Your task to perform on an android device: change the clock display to analog Image 0: 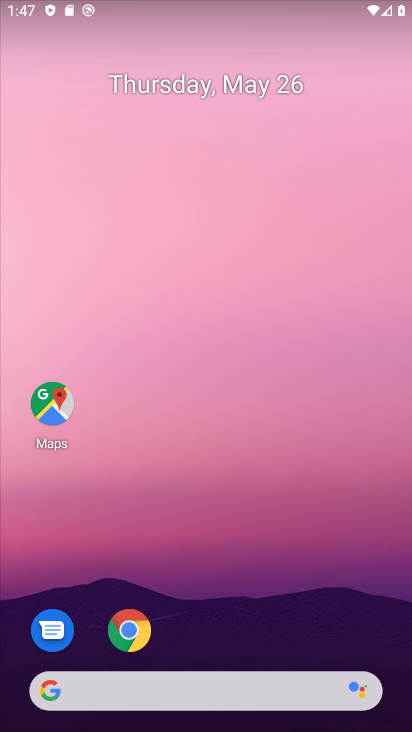
Step 0: drag from (175, 562) to (222, 167)
Your task to perform on an android device: change the clock display to analog Image 1: 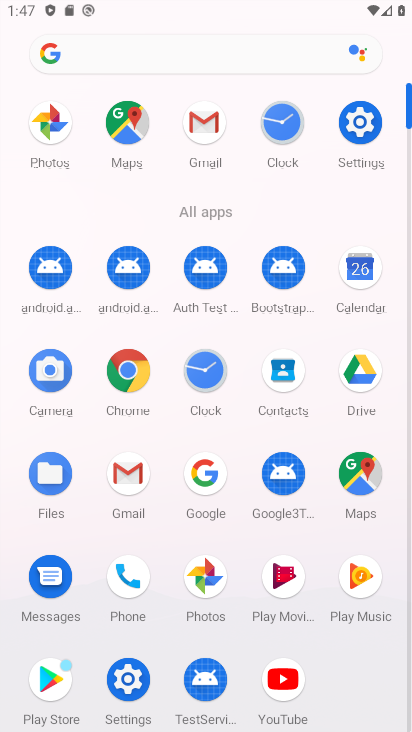
Step 1: drag from (235, 401) to (262, 104)
Your task to perform on an android device: change the clock display to analog Image 2: 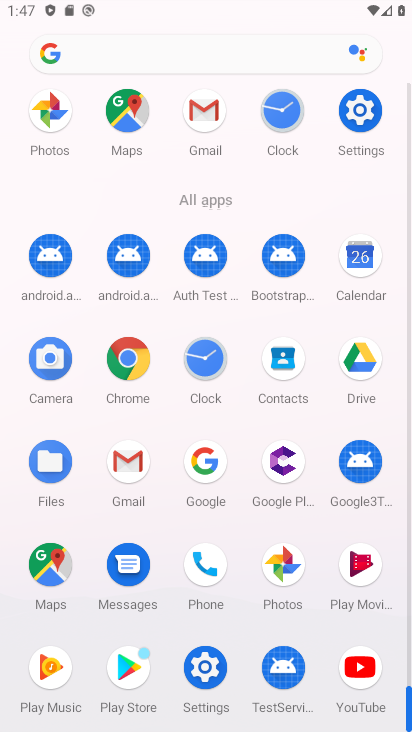
Step 2: click (287, 108)
Your task to perform on an android device: change the clock display to analog Image 3: 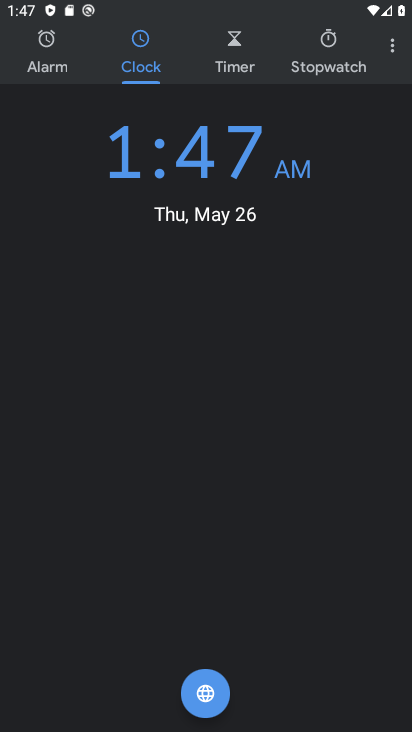
Step 3: click (391, 39)
Your task to perform on an android device: change the clock display to analog Image 4: 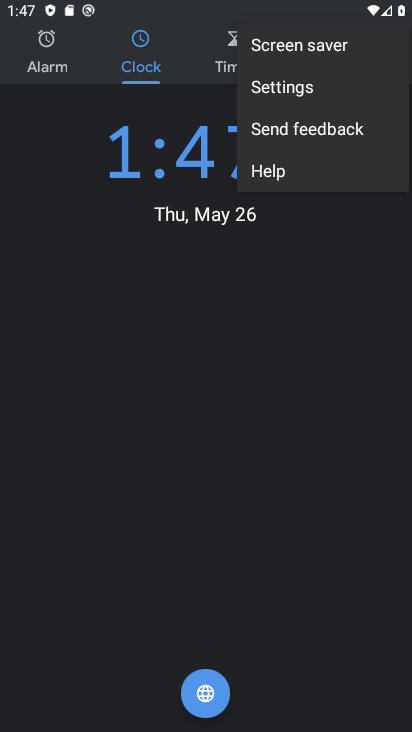
Step 4: click (385, 97)
Your task to perform on an android device: change the clock display to analog Image 5: 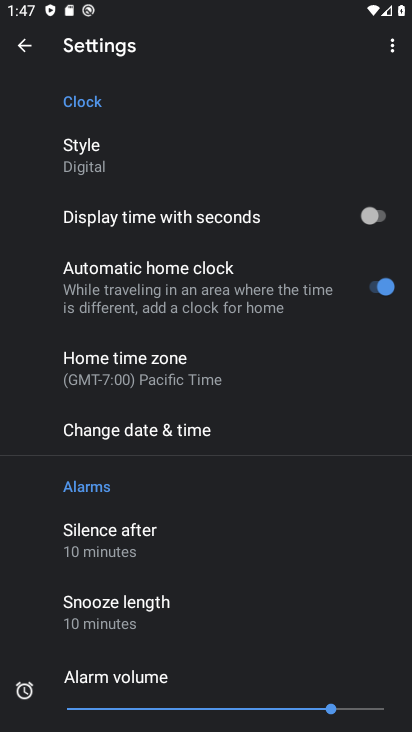
Step 5: click (259, 159)
Your task to perform on an android device: change the clock display to analog Image 6: 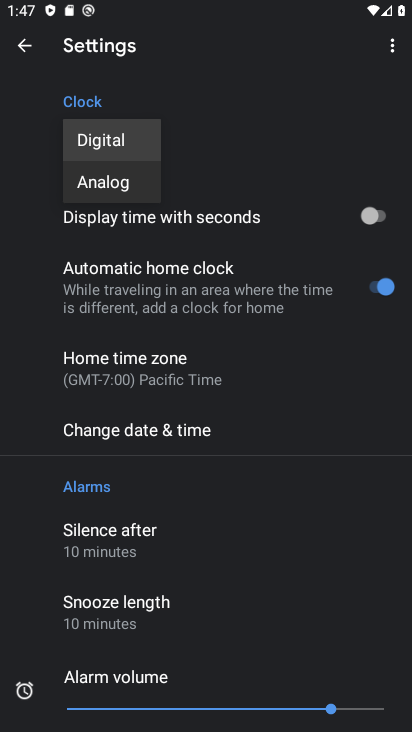
Step 6: click (142, 180)
Your task to perform on an android device: change the clock display to analog Image 7: 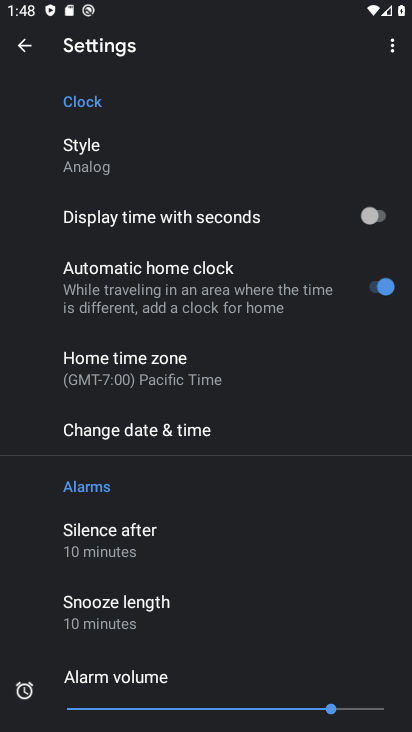
Step 7: task complete